Your task to perform on an android device: Open calendar and show me the second week of next month Image 0: 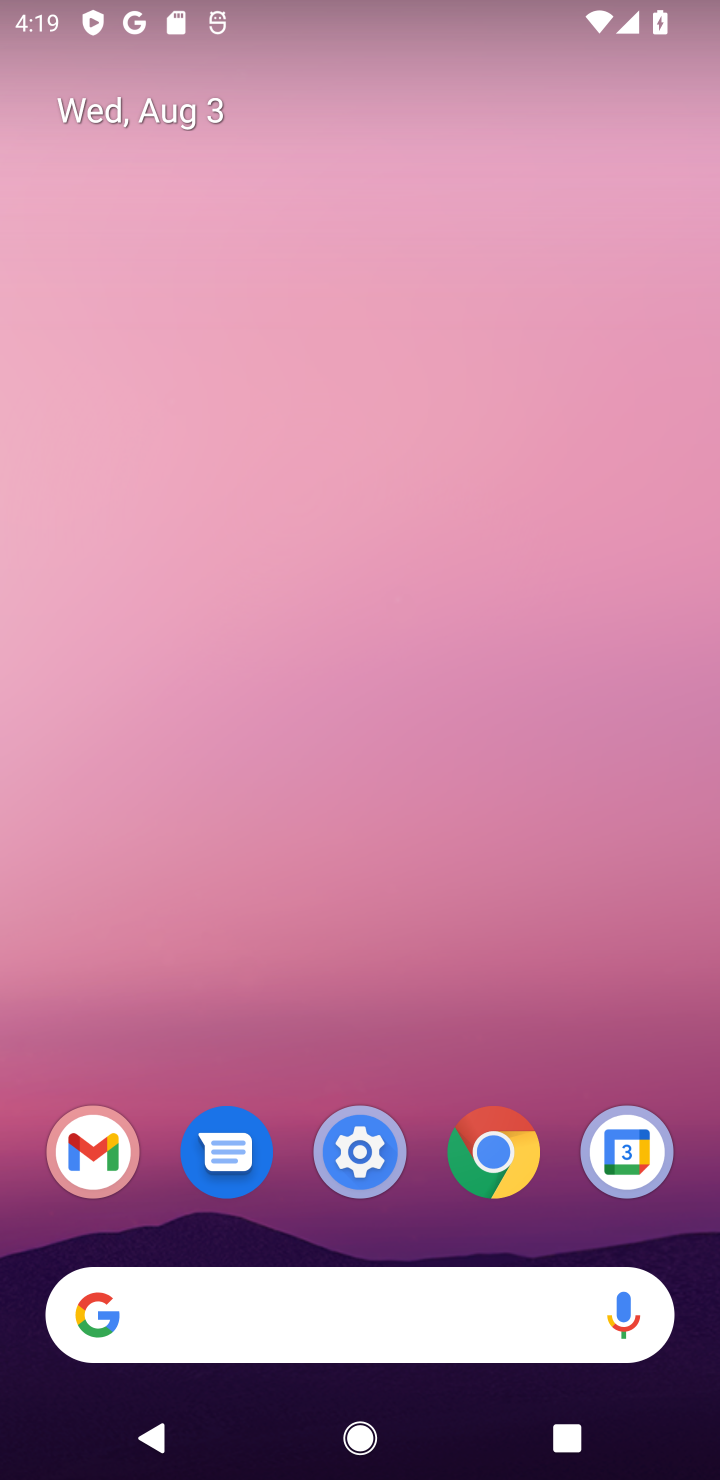
Step 0: drag from (368, 1293) to (419, 436)
Your task to perform on an android device: Open calendar and show me the second week of next month Image 1: 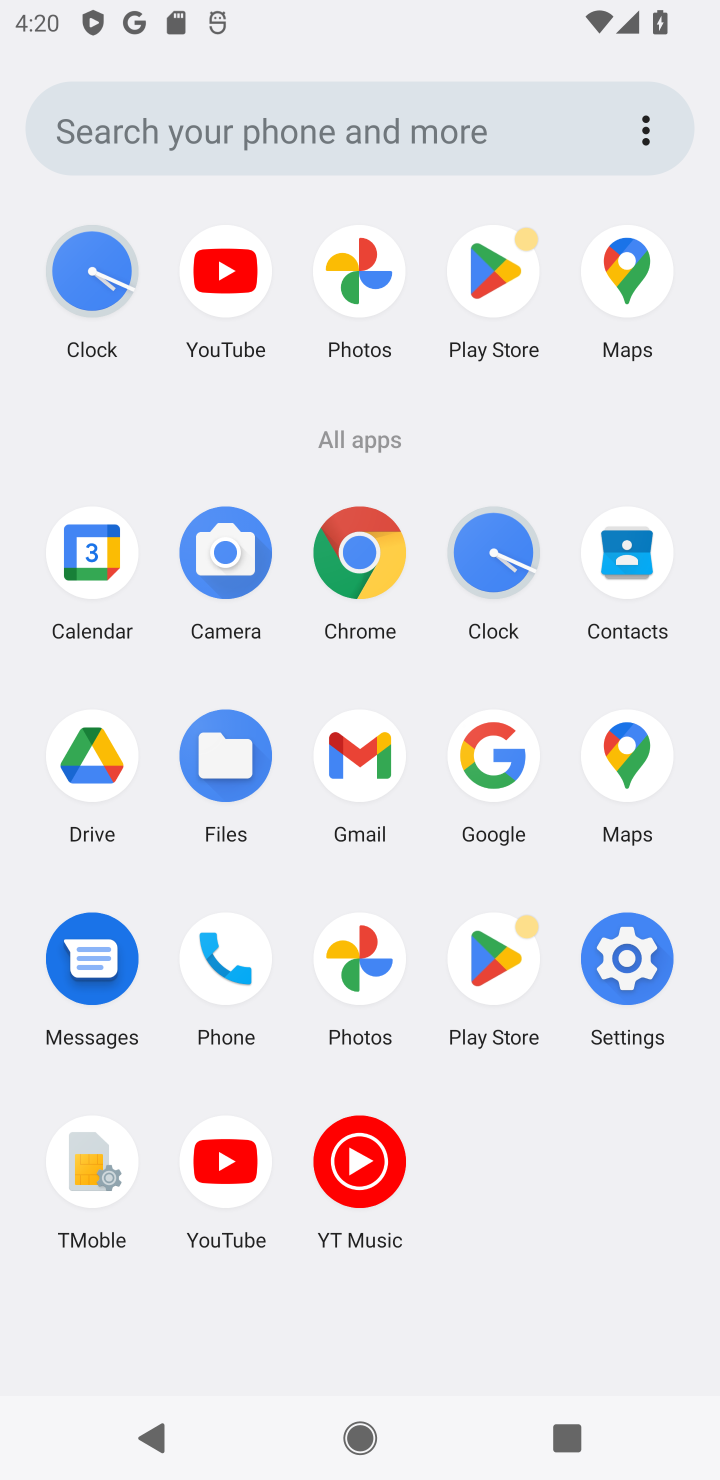
Step 1: click (92, 588)
Your task to perform on an android device: Open calendar and show me the second week of next month Image 2: 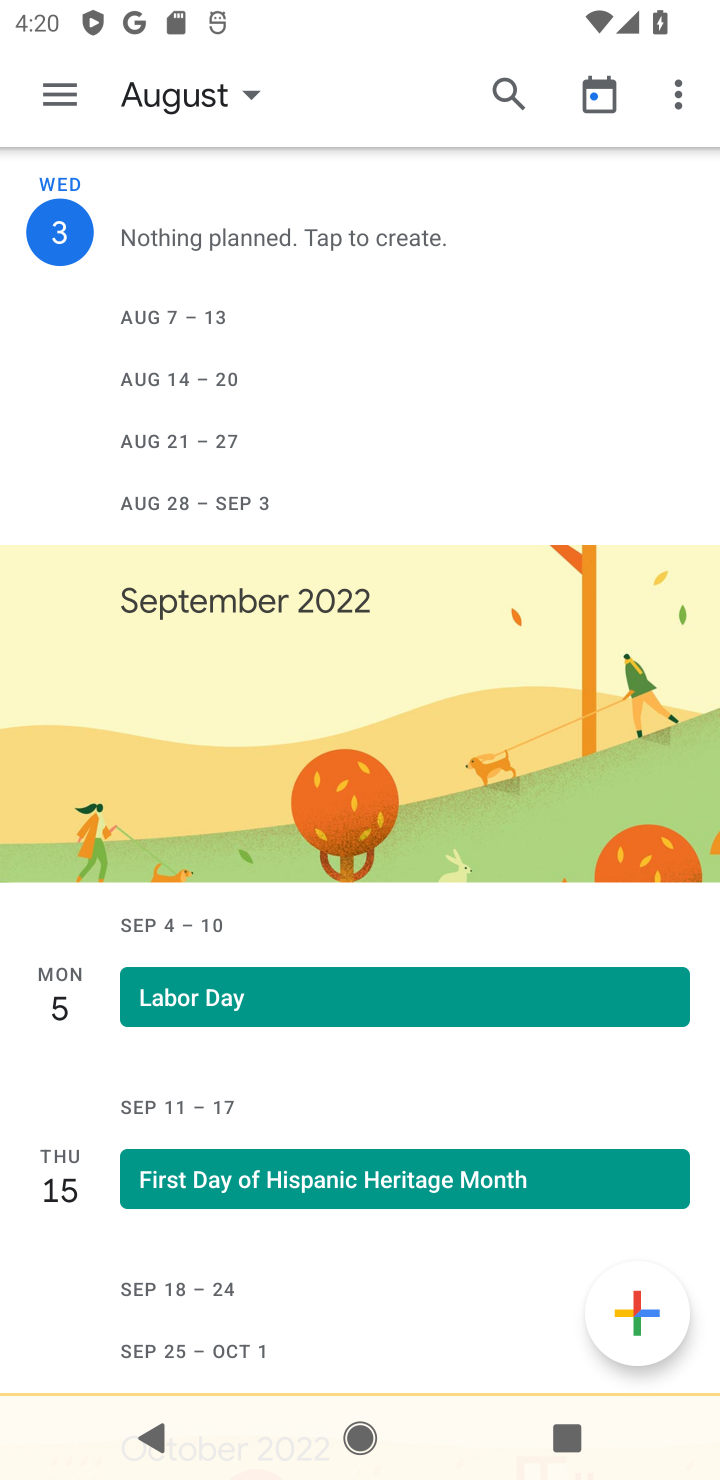
Step 2: click (63, 93)
Your task to perform on an android device: Open calendar and show me the second week of next month Image 3: 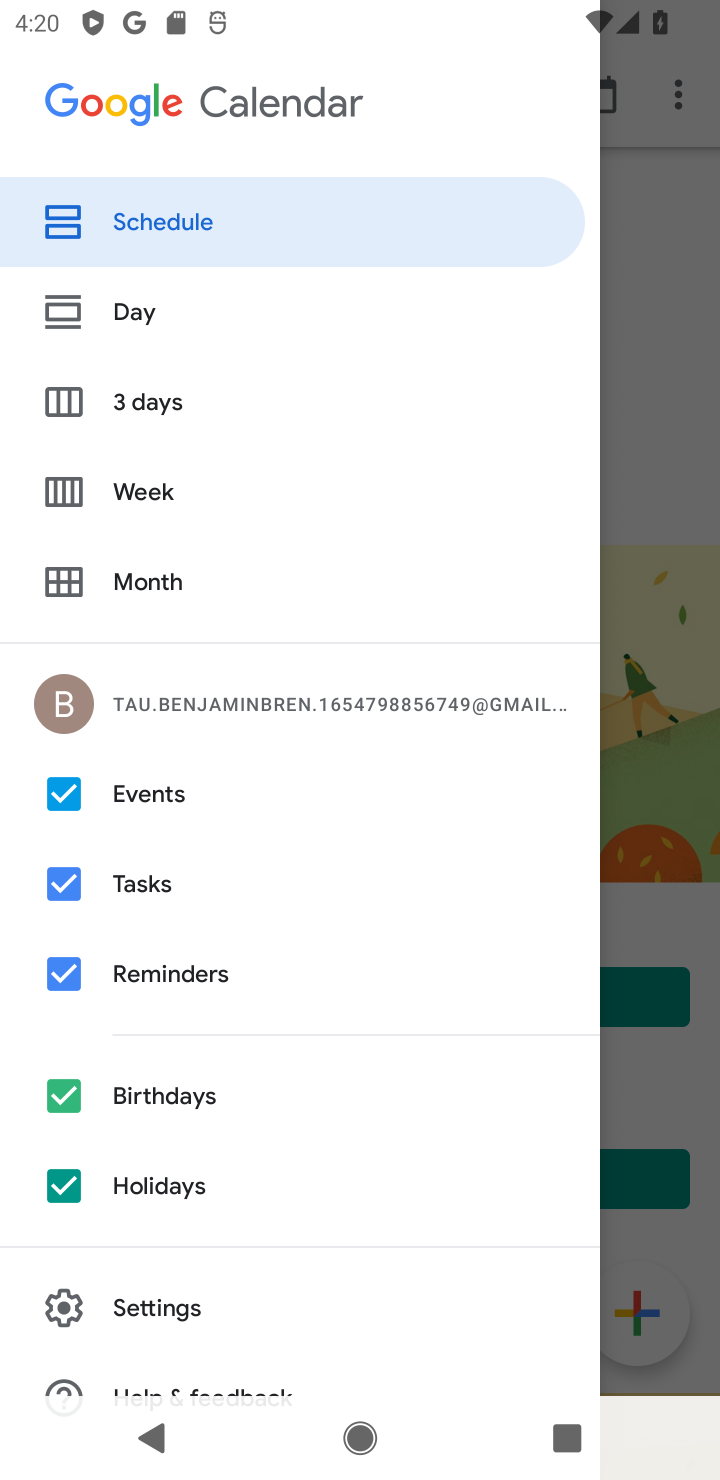
Step 3: click (162, 576)
Your task to perform on an android device: Open calendar and show me the second week of next month Image 4: 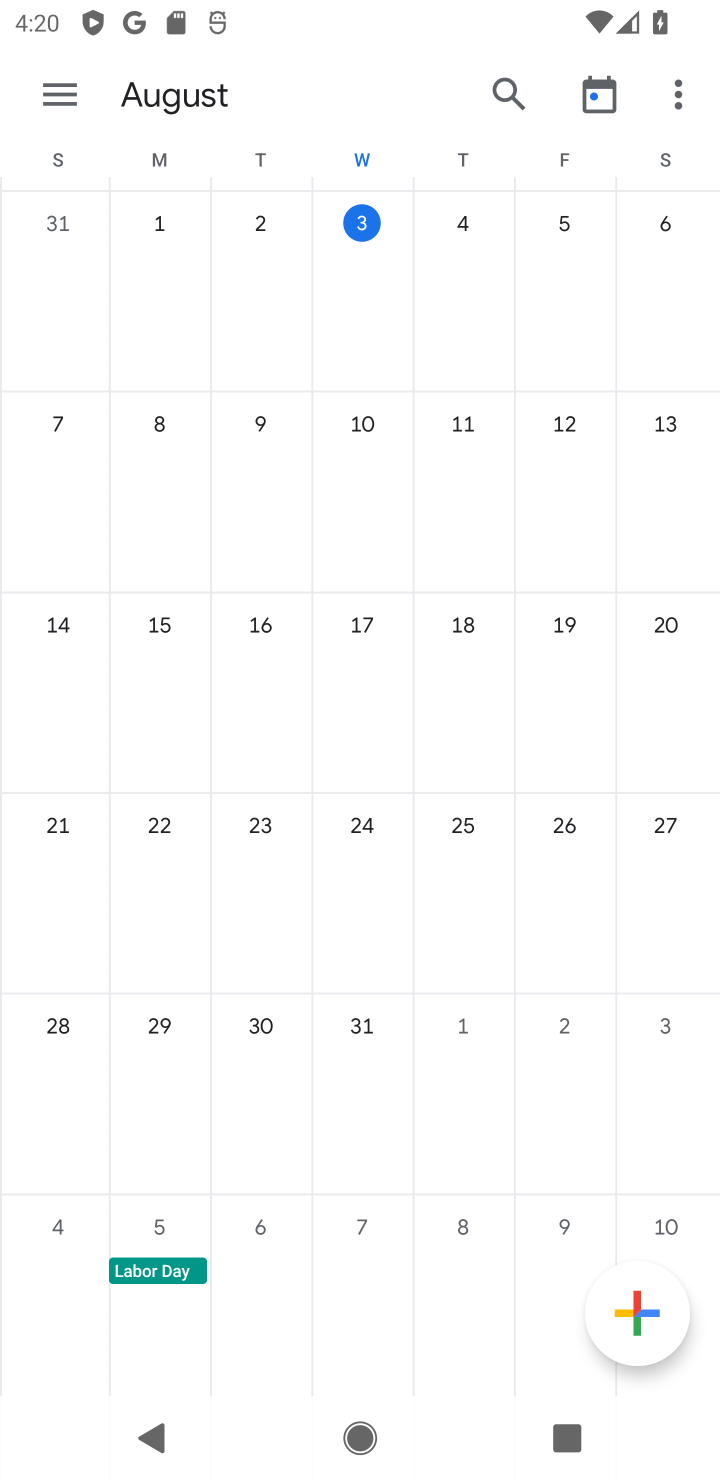
Step 4: task complete